Your task to perform on an android device: check out phone information Image 0: 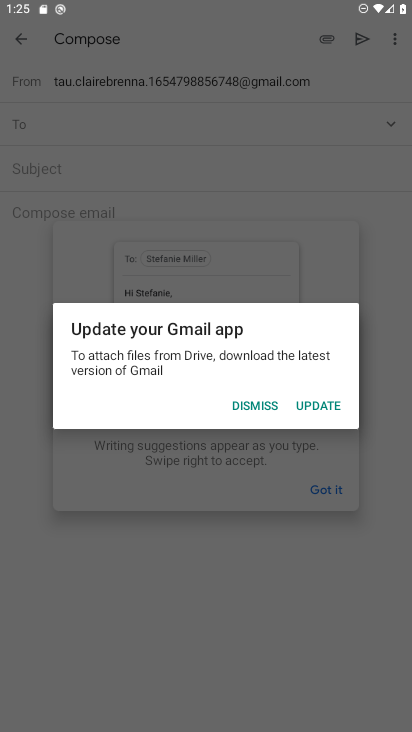
Step 0: press home button
Your task to perform on an android device: check out phone information Image 1: 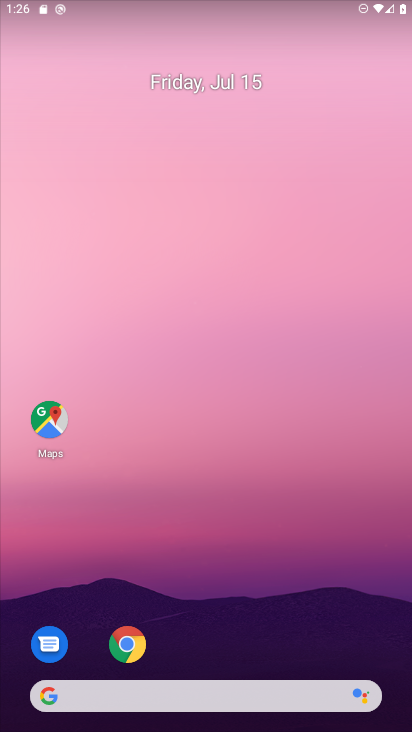
Step 1: drag from (391, 691) to (356, 101)
Your task to perform on an android device: check out phone information Image 2: 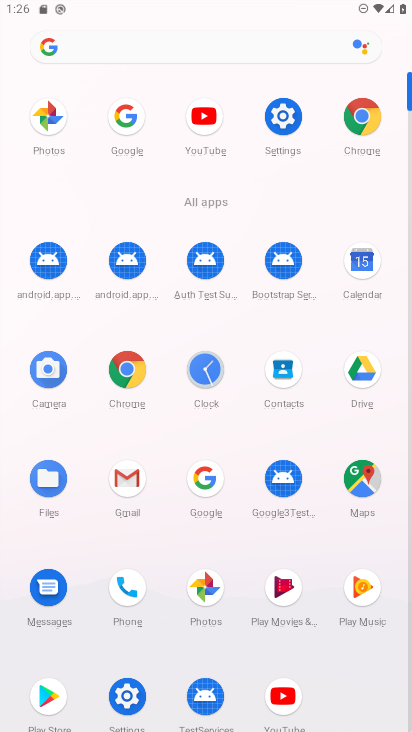
Step 2: click (283, 124)
Your task to perform on an android device: check out phone information Image 3: 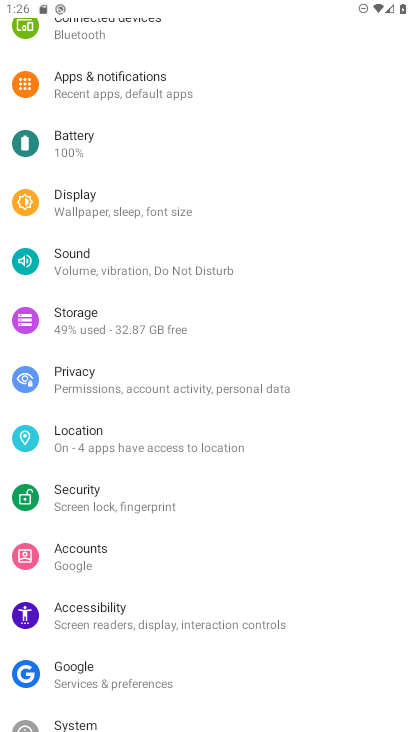
Step 3: drag from (245, 684) to (233, 290)
Your task to perform on an android device: check out phone information Image 4: 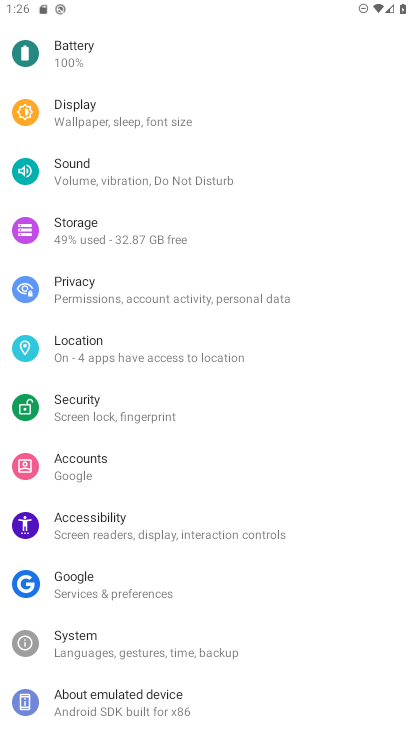
Step 4: click (88, 688)
Your task to perform on an android device: check out phone information Image 5: 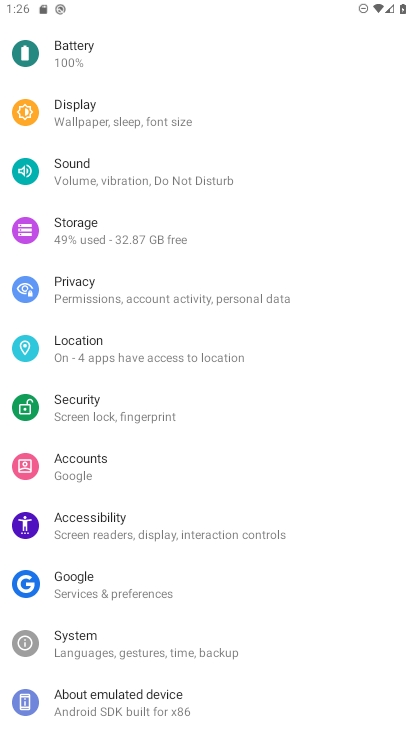
Step 5: click (159, 693)
Your task to perform on an android device: check out phone information Image 6: 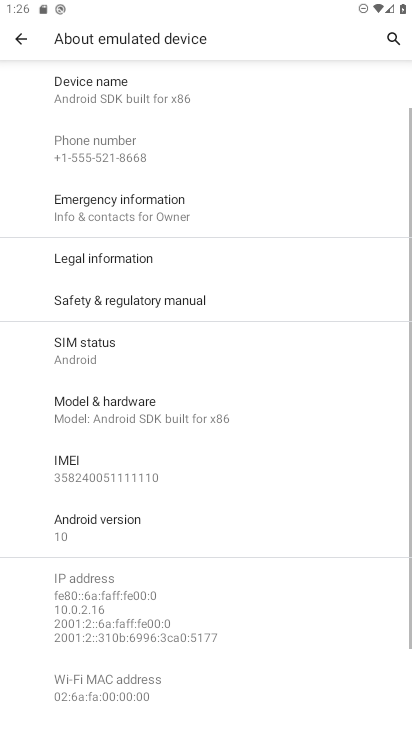
Step 6: task complete